Your task to perform on an android device: find snoozed emails in the gmail app Image 0: 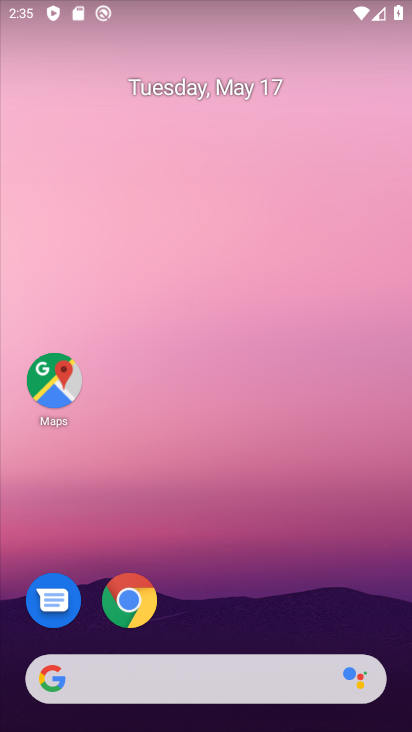
Step 0: drag from (191, 615) to (283, 102)
Your task to perform on an android device: find snoozed emails in the gmail app Image 1: 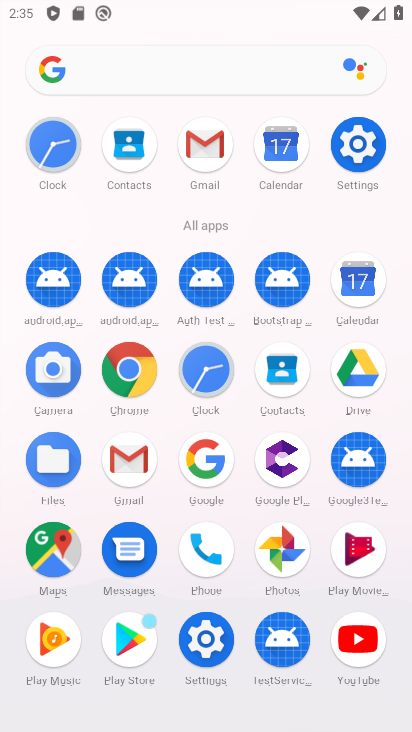
Step 1: click (139, 470)
Your task to perform on an android device: find snoozed emails in the gmail app Image 2: 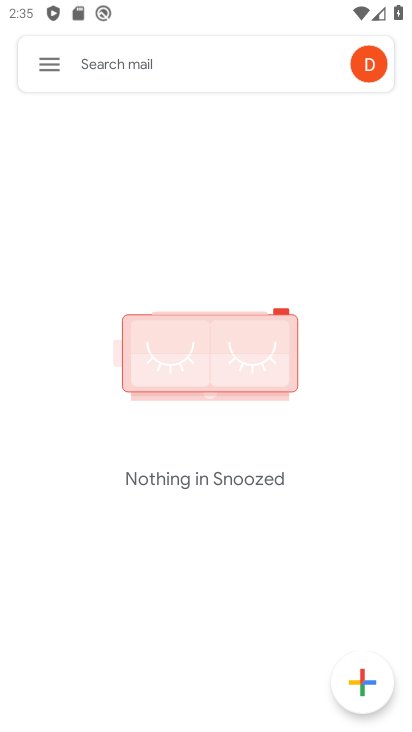
Step 2: click (44, 65)
Your task to perform on an android device: find snoozed emails in the gmail app Image 3: 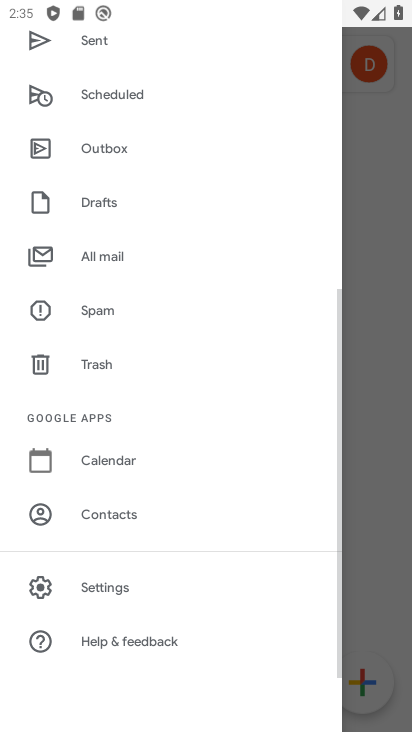
Step 3: drag from (137, 126) to (125, 547)
Your task to perform on an android device: find snoozed emails in the gmail app Image 4: 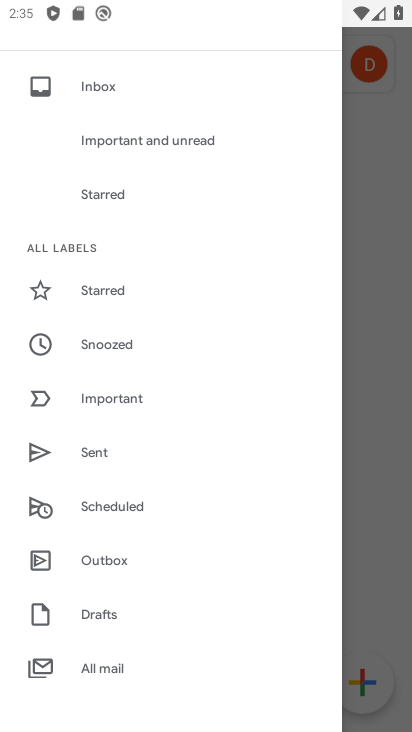
Step 4: click (148, 343)
Your task to perform on an android device: find snoozed emails in the gmail app Image 5: 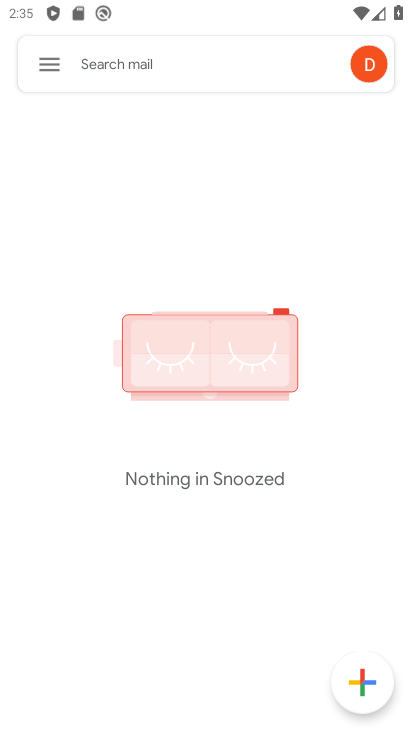
Step 5: task complete